Your task to perform on an android device: Turn on the flashlight Image 0: 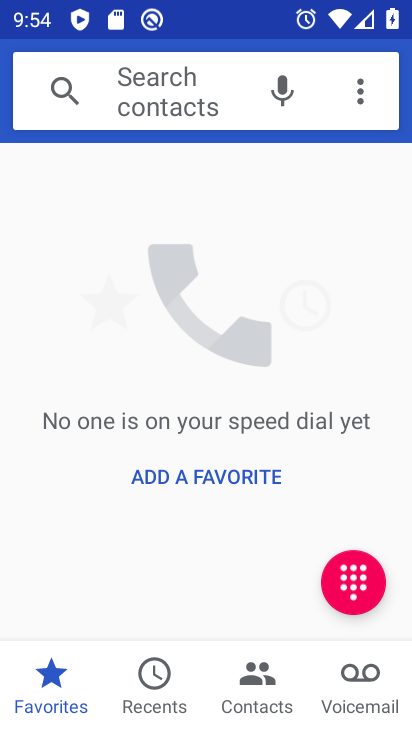
Step 0: press home button
Your task to perform on an android device: Turn on the flashlight Image 1: 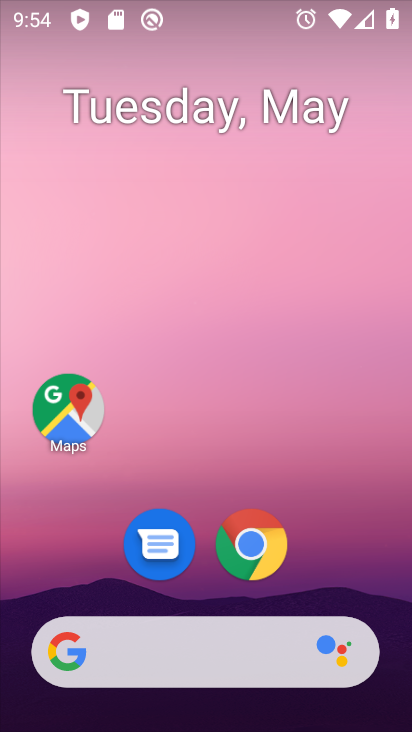
Step 1: drag from (355, 556) to (327, 96)
Your task to perform on an android device: Turn on the flashlight Image 2: 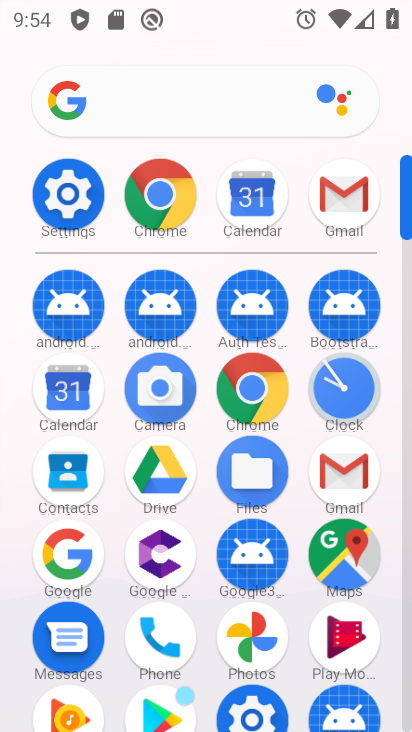
Step 2: click (60, 196)
Your task to perform on an android device: Turn on the flashlight Image 3: 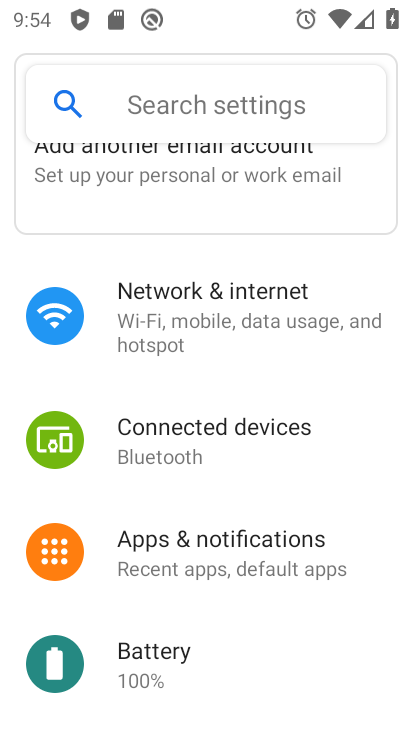
Step 3: click (170, 93)
Your task to perform on an android device: Turn on the flashlight Image 4: 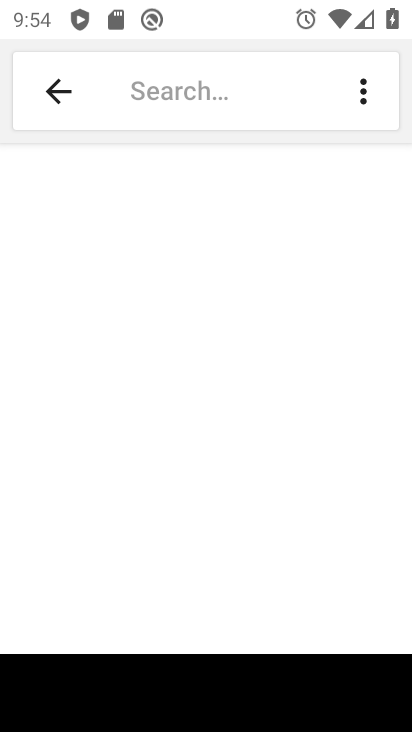
Step 4: type "flashlight"
Your task to perform on an android device: Turn on the flashlight Image 5: 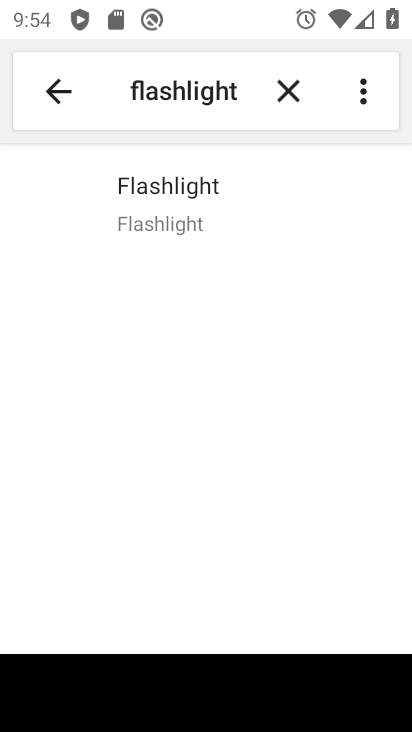
Step 5: click (182, 223)
Your task to perform on an android device: Turn on the flashlight Image 6: 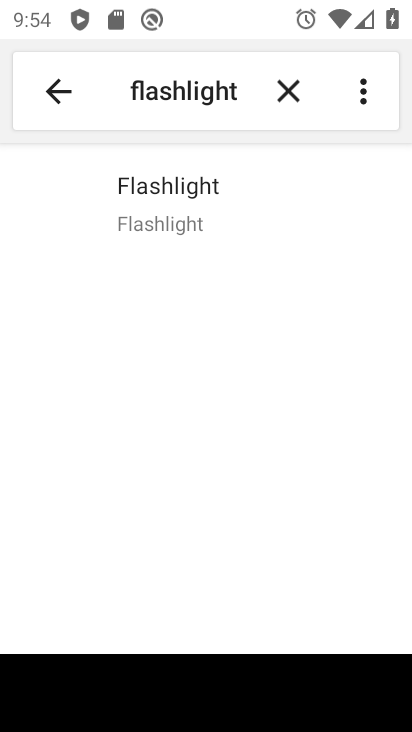
Step 6: task complete